Your task to perform on an android device: Open notification settings Image 0: 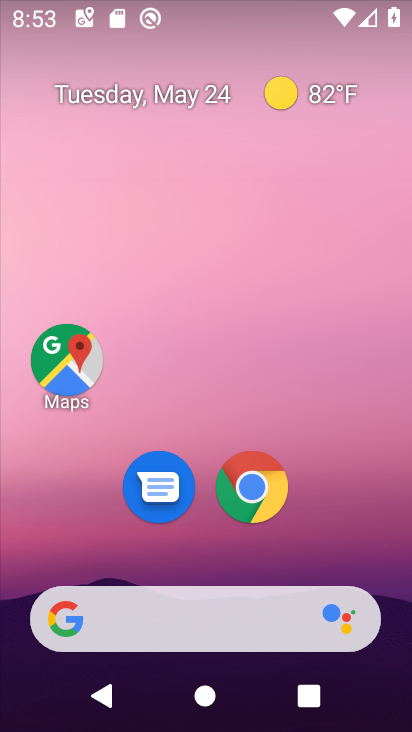
Step 0: drag from (358, 497) to (333, 119)
Your task to perform on an android device: Open notification settings Image 1: 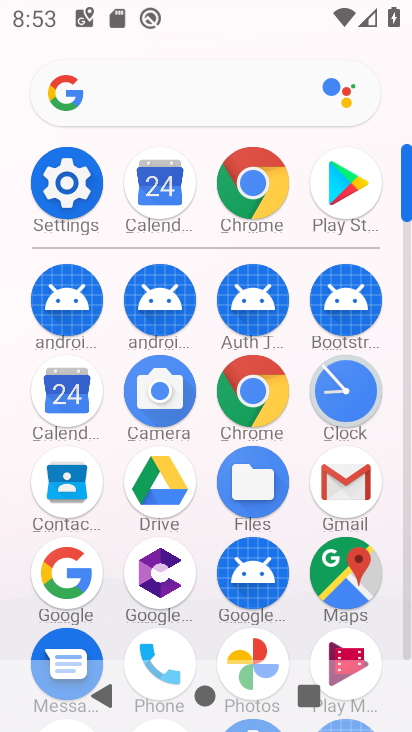
Step 1: click (90, 184)
Your task to perform on an android device: Open notification settings Image 2: 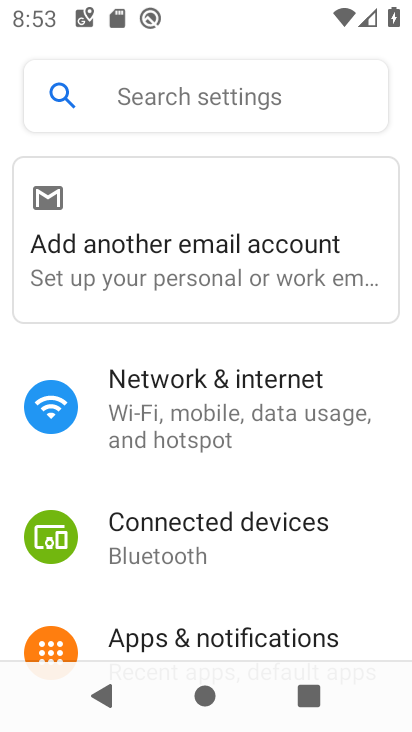
Step 2: drag from (286, 588) to (276, 256)
Your task to perform on an android device: Open notification settings Image 3: 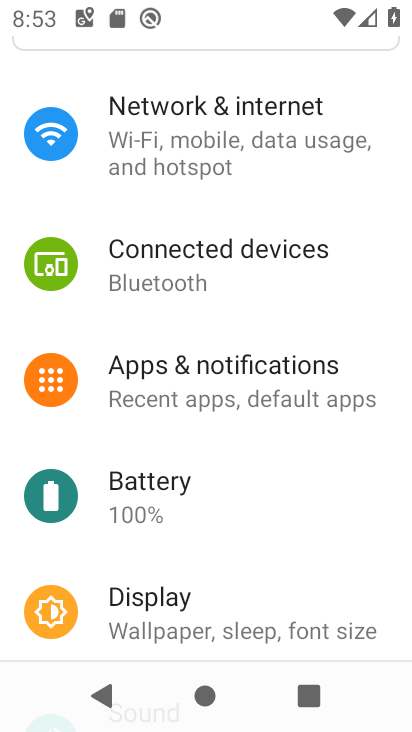
Step 3: click (244, 366)
Your task to perform on an android device: Open notification settings Image 4: 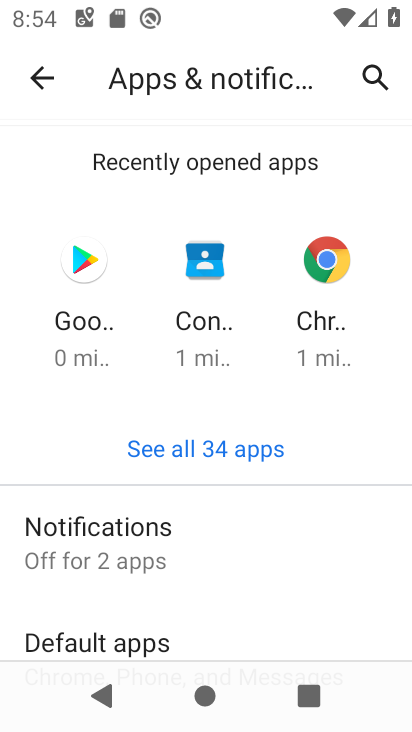
Step 4: click (163, 527)
Your task to perform on an android device: Open notification settings Image 5: 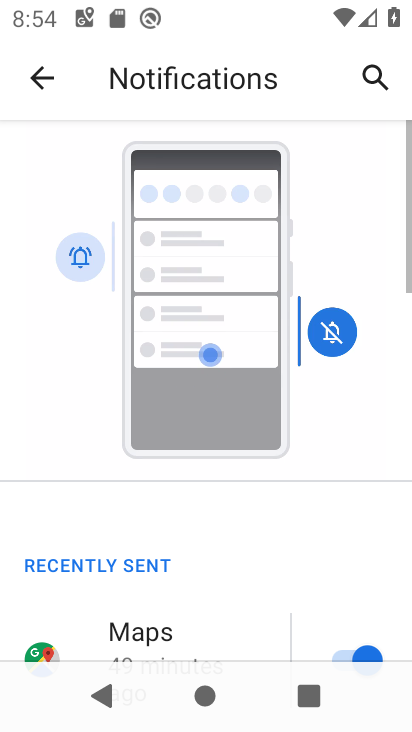
Step 5: task complete